Your task to perform on an android device: Go to Amazon Image 0: 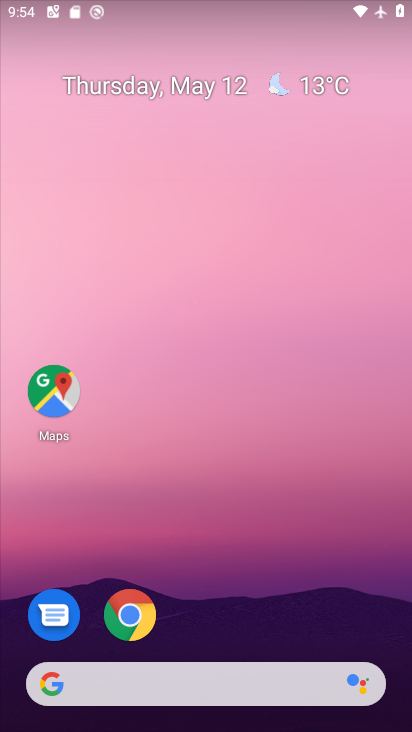
Step 0: click (128, 609)
Your task to perform on an android device: Go to Amazon Image 1: 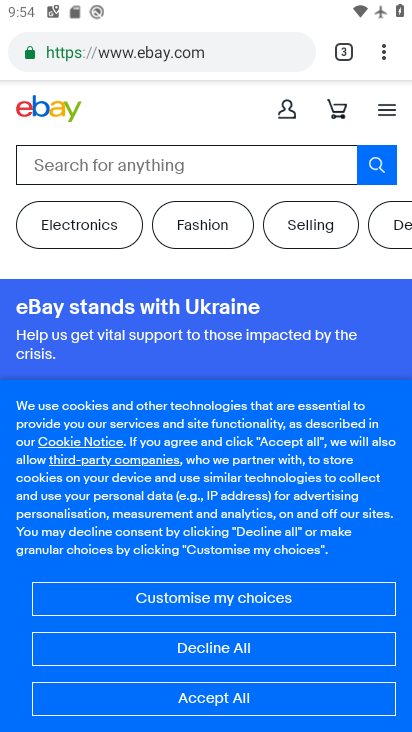
Step 1: click (389, 56)
Your task to perform on an android device: Go to Amazon Image 2: 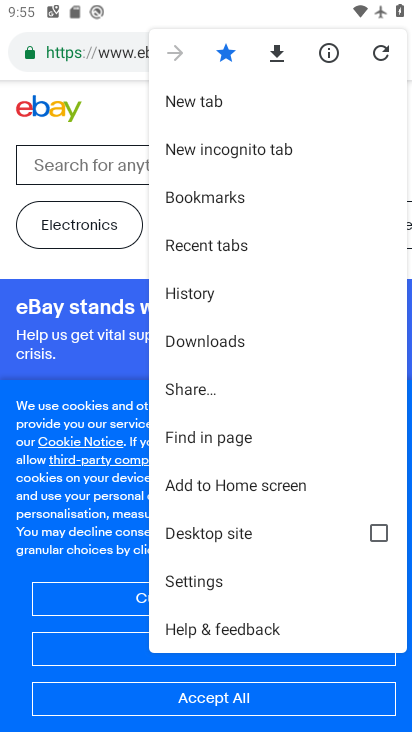
Step 2: click (194, 102)
Your task to perform on an android device: Go to Amazon Image 3: 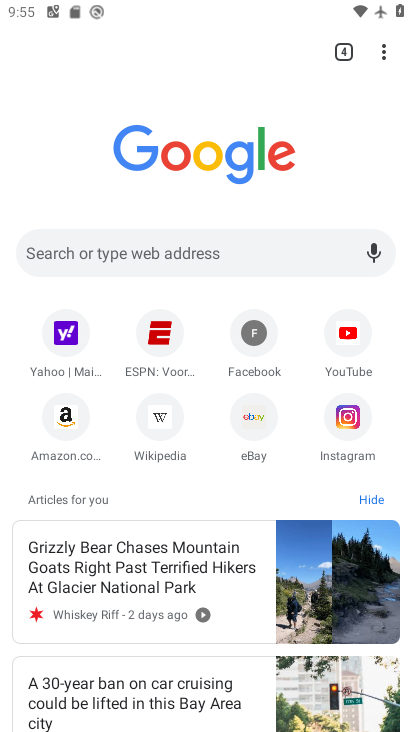
Step 3: click (62, 419)
Your task to perform on an android device: Go to Amazon Image 4: 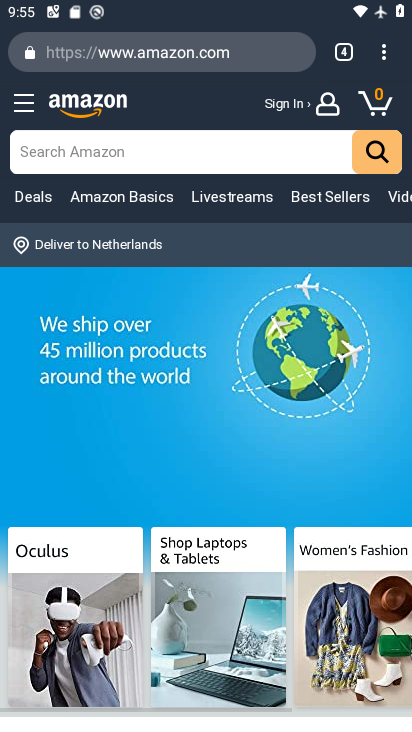
Step 4: task complete